Your task to perform on an android device: Go to network settings Image 0: 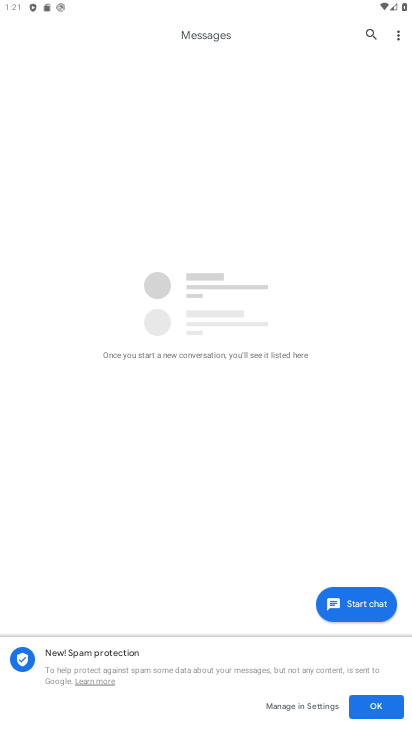
Step 0: press home button
Your task to perform on an android device: Go to network settings Image 1: 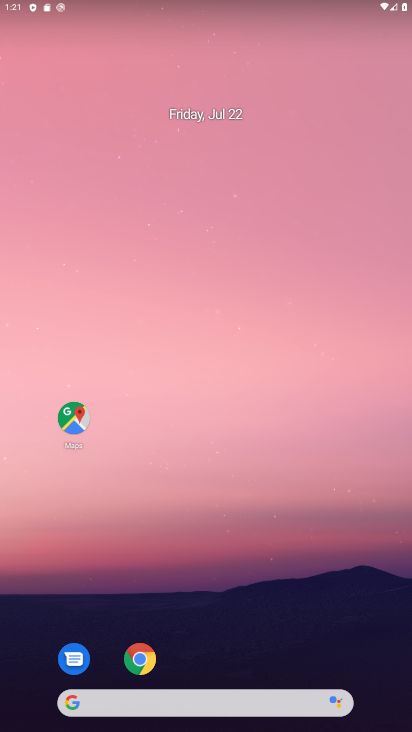
Step 1: drag from (289, 612) to (304, 15)
Your task to perform on an android device: Go to network settings Image 2: 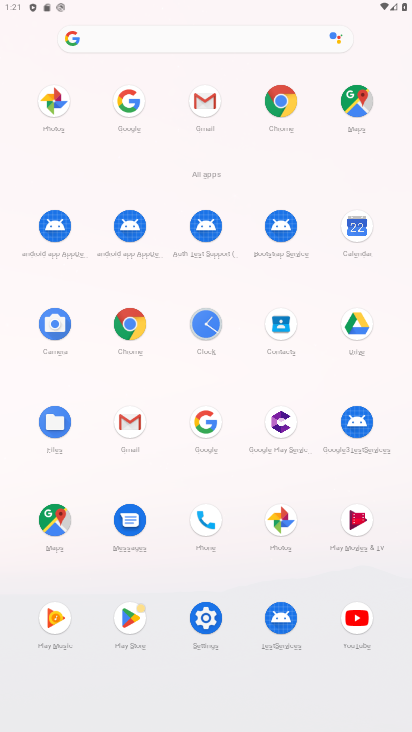
Step 2: click (214, 621)
Your task to perform on an android device: Go to network settings Image 3: 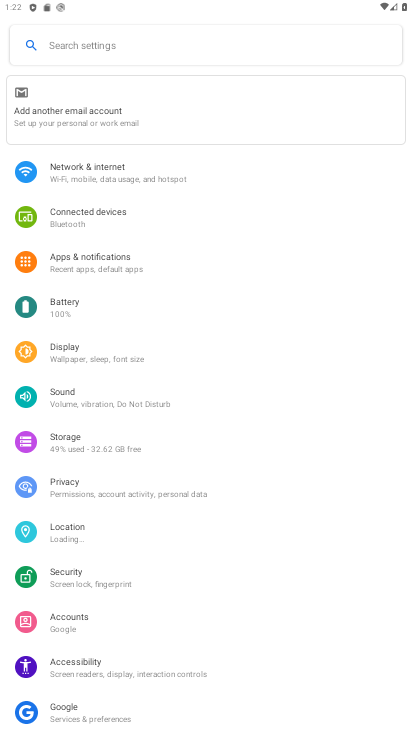
Step 3: click (117, 183)
Your task to perform on an android device: Go to network settings Image 4: 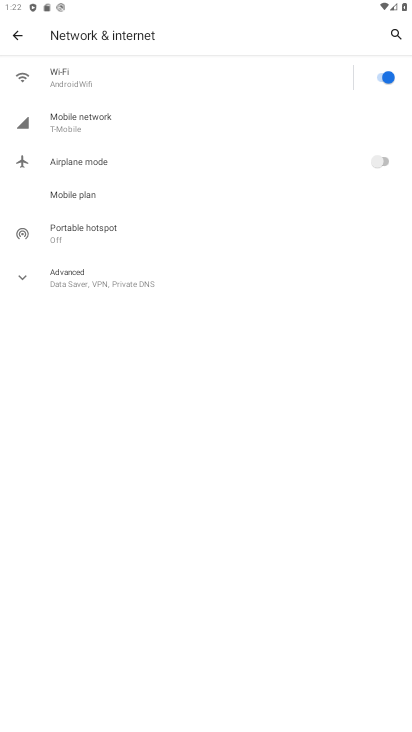
Step 4: click (169, 119)
Your task to perform on an android device: Go to network settings Image 5: 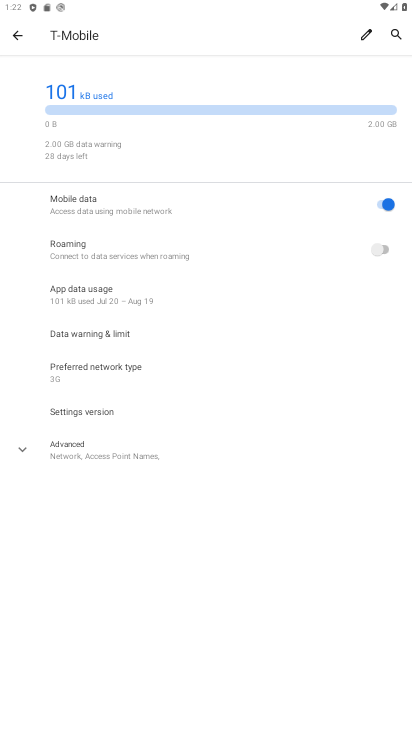
Step 5: task complete